Your task to perform on an android device: Go to Amazon Image 0: 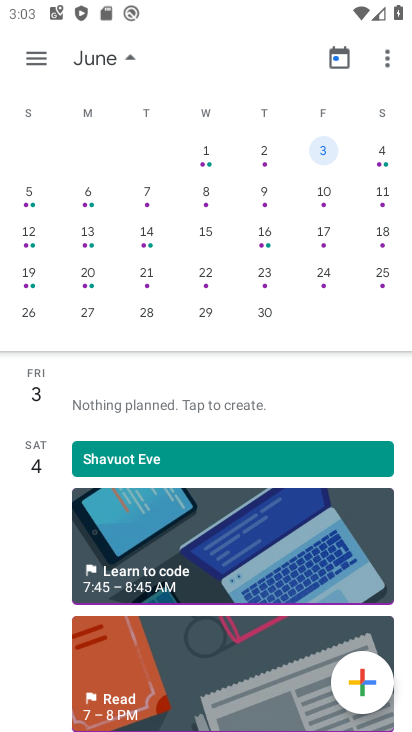
Step 0: press home button
Your task to perform on an android device: Go to Amazon Image 1: 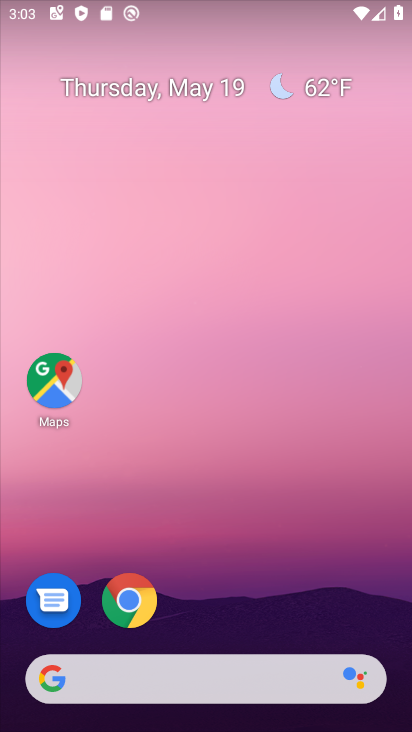
Step 1: click (127, 606)
Your task to perform on an android device: Go to Amazon Image 2: 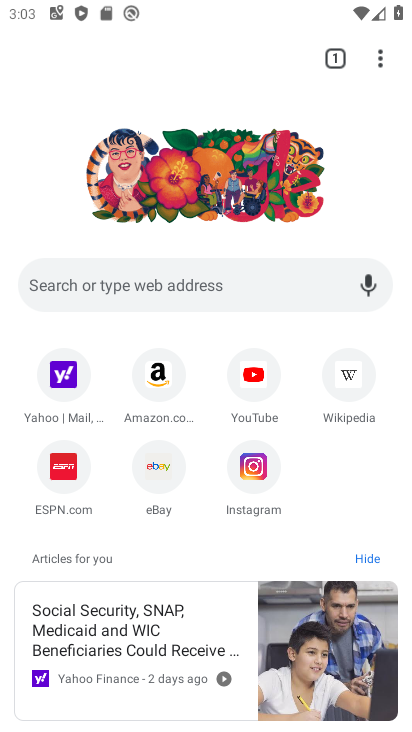
Step 2: click (154, 367)
Your task to perform on an android device: Go to Amazon Image 3: 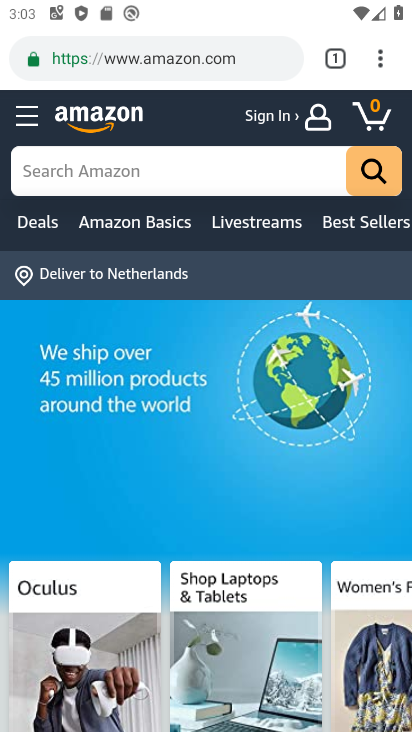
Step 3: task complete